Your task to perform on an android device: Go to display settings Image 0: 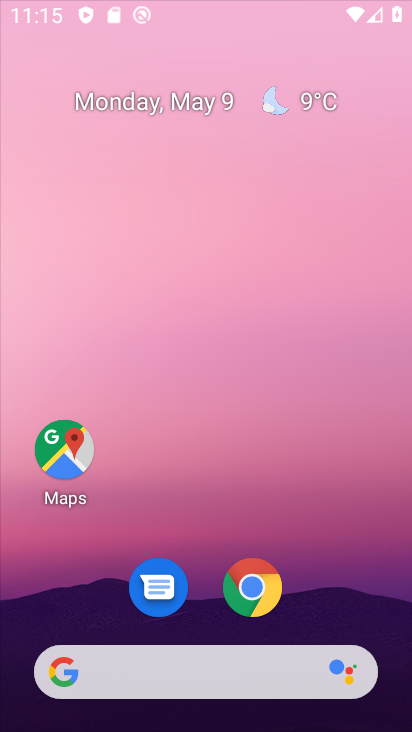
Step 0: click (252, 589)
Your task to perform on an android device: Go to display settings Image 1: 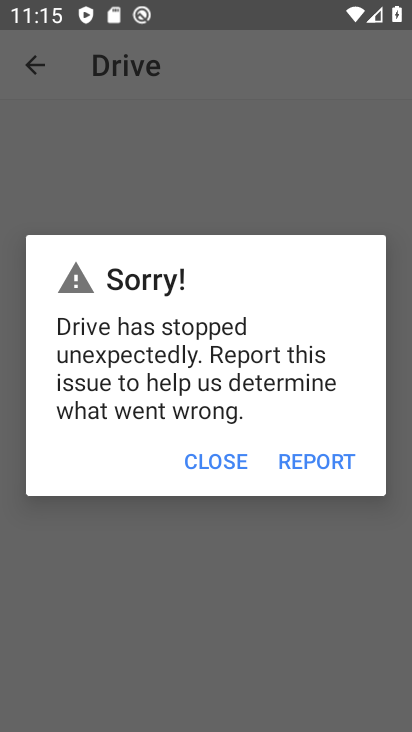
Step 1: press home button
Your task to perform on an android device: Go to display settings Image 2: 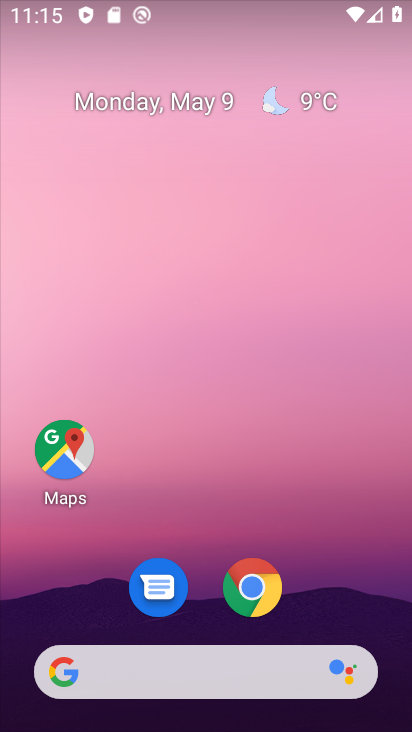
Step 2: drag from (190, 537) to (247, 273)
Your task to perform on an android device: Go to display settings Image 3: 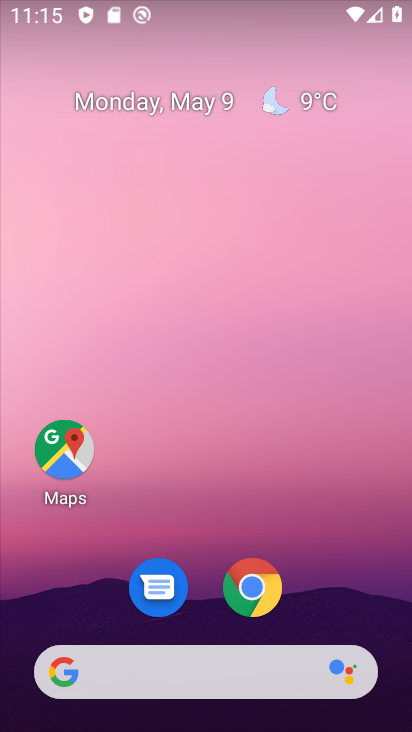
Step 3: drag from (204, 639) to (267, 103)
Your task to perform on an android device: Go to display settings Image 4: 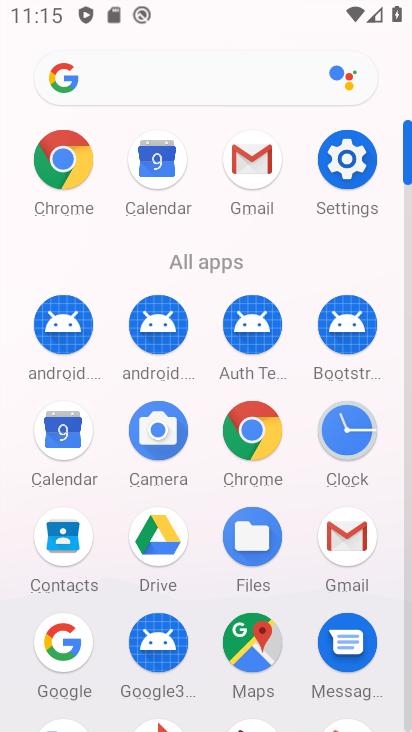
Step 4: click (345, 163)
Your task to perform on an android device: Go to display settings Image 5: 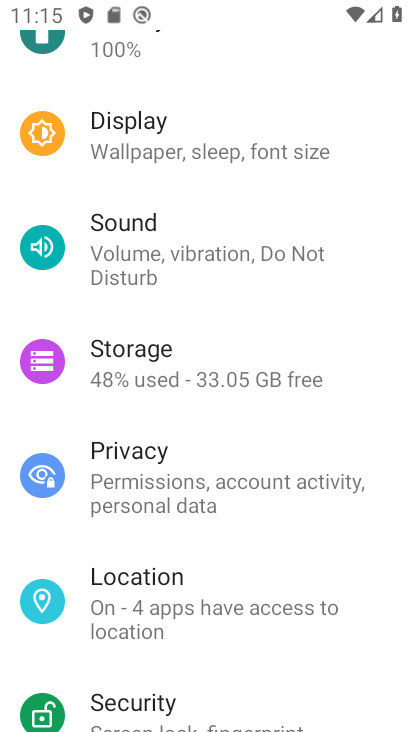
Step 5: click (213, 145)
Your task to perform on an android device: Go to display settings Image 6: 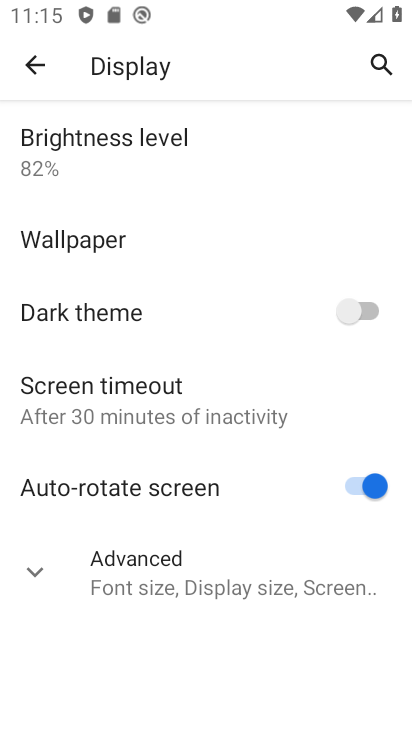
Step 6: task complete